Your task to perform on an android device: Open the map Image 0: 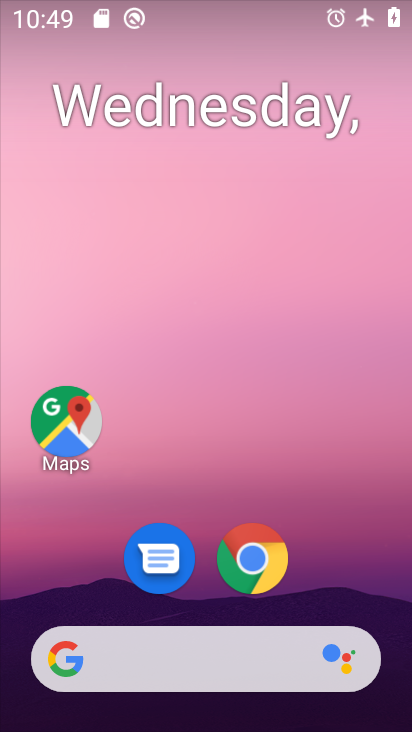
Step 0: drag from (349, 579) to (402, 87)
Your task to perform on an android device: Open the map Image 1: 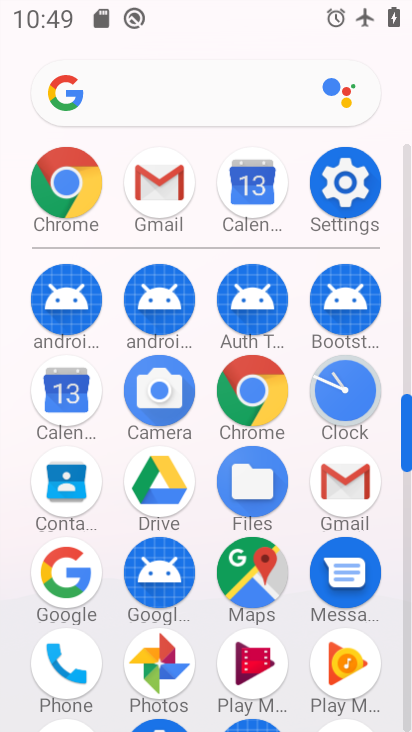
Step 1: click (246, 568)
Your task to perform on an android device: Open the map Image 2: 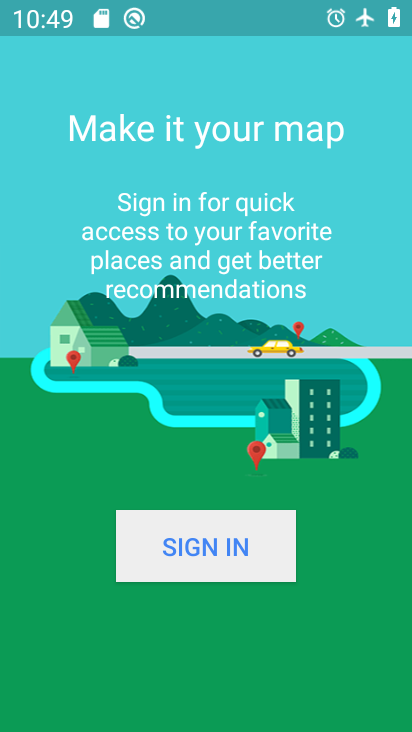
Step 2: task complete